Your task to perform on an android device: turn smart compose on in the gmail app Image 0: 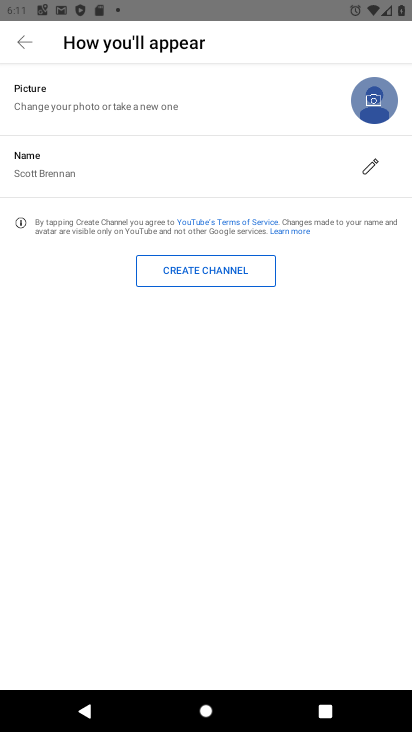
Step 0: press home button
Your task to perform on an android device: turn smart compose on in the gmail app Image 1: 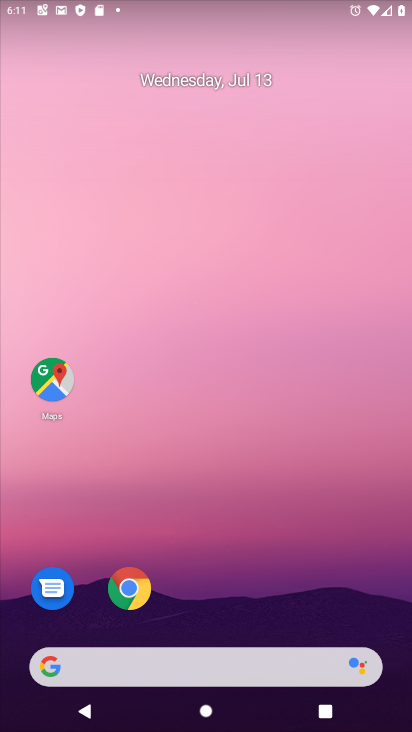
Step 1: drag from (173, 364) to (167, 18)
Your task to perform on an android device: turn smart compose on in the gmail app Image 2: 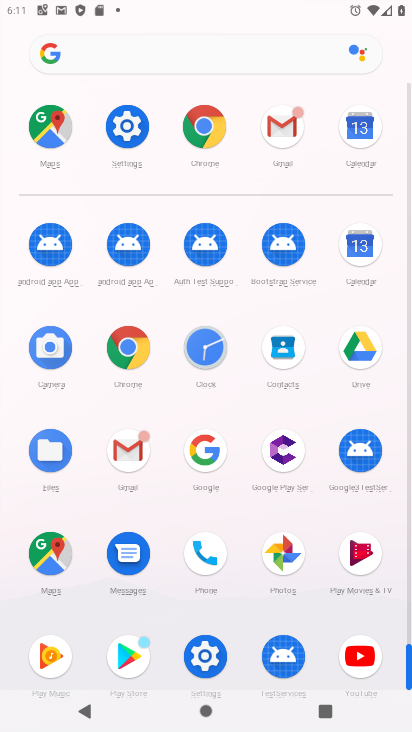
Step 2: click (287, 130)
Your task to perform on an android device: turn smart compose on in the gmail app Image 3: 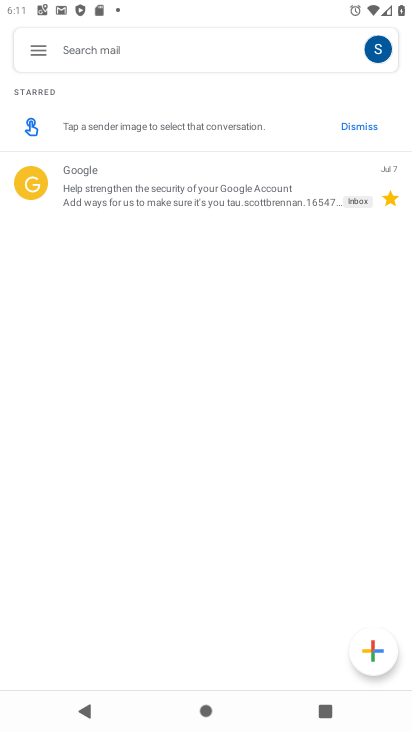
Step 3: click (25, 51)
Your task to perform on an android device: turn smart compose on in the gmail app Image 4: 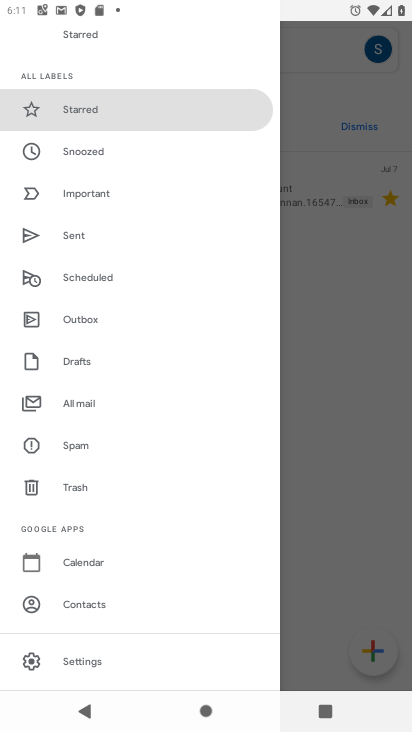
Step 4: click (83, 661)
Your task to perform on an android device: turn smart compose on in the gmail app Image 5: 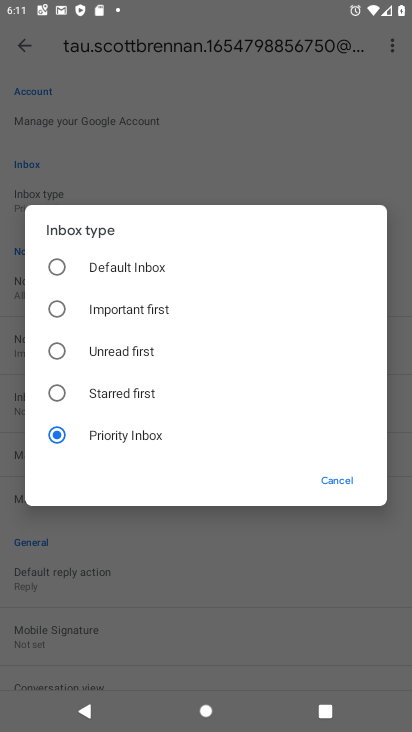
Step 5: click (325, 480)
Your task to perform on an android device: turn smart compose on in the gmail app Image 6: 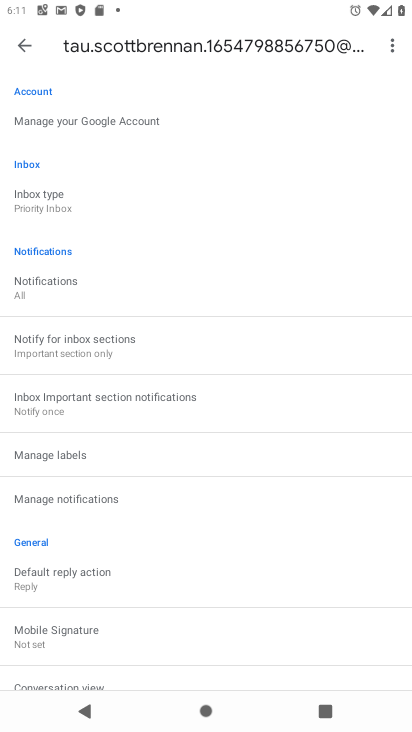
Step 6: task complete